Your task to perform on an android device: Show me productivity apps on the Play Store Image 0: 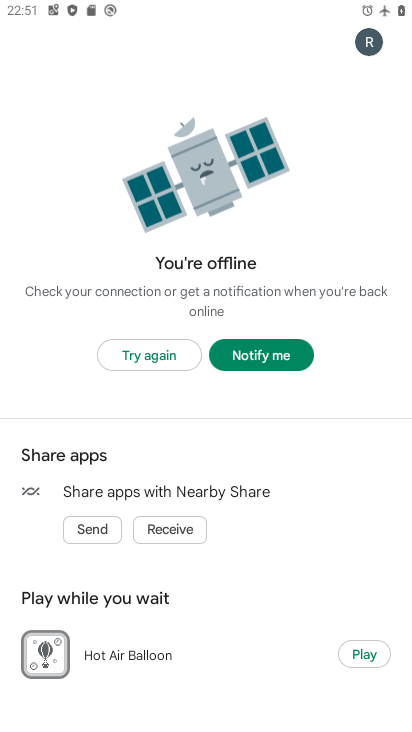
Step 0: press home button
Your task to perform on an android device: Show me productivity apps on the Play Store Image 1: 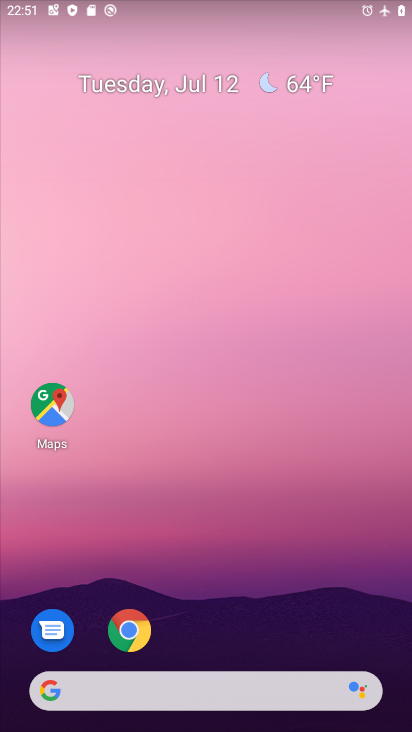
Step 1: drag from (202, 650) to (391, 61)
Your task to perform on an android device: Show me productivity apps on the Play Store Image 2: 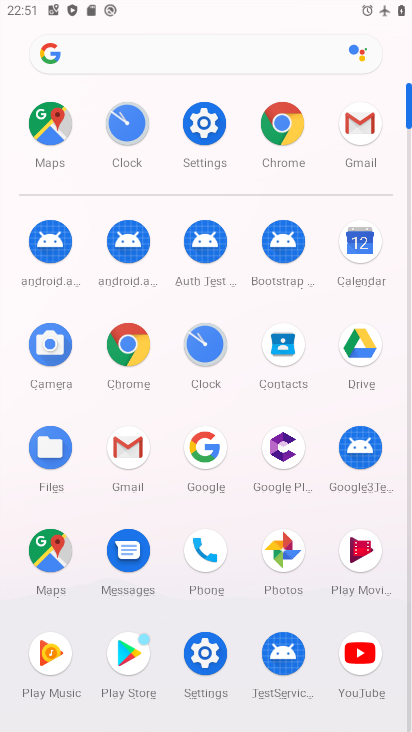
Step 2: click (119, 675)
Your task to perform on an android device: Show me productivity apps on the Play Store Image 3: 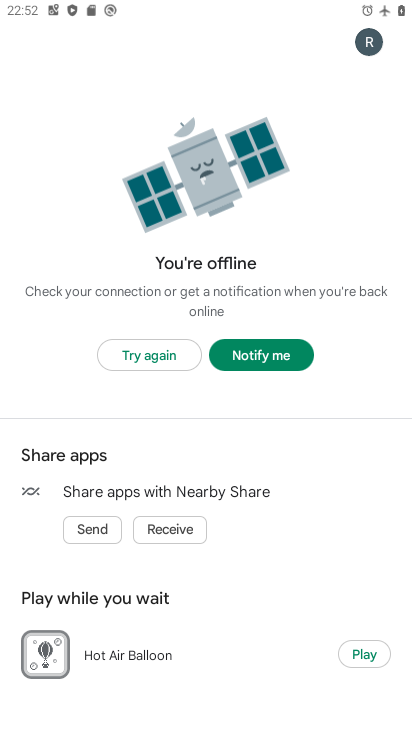
Step 3: click (142, 347)
Your task to perform on an android device: Show me productivity apps on the Play Store Image 4: 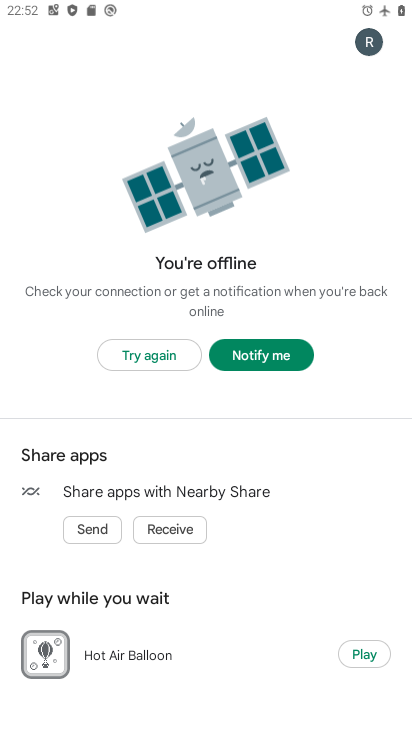
Step 4: task complete